Your task to perform on an android device: Open the calendar app, open the side menu, and click the "Day" option Image 0: 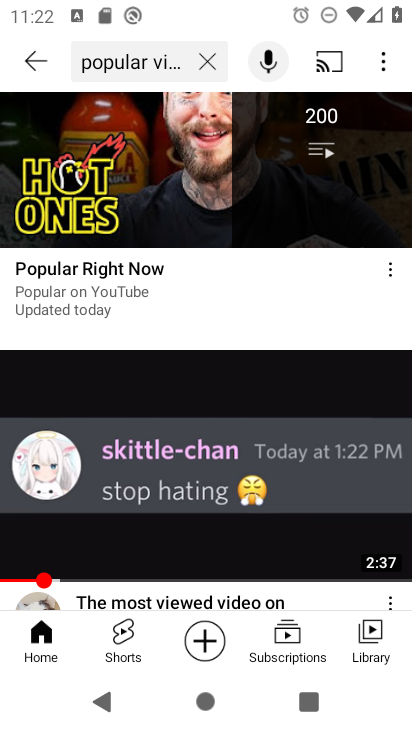
Step 0: press home button
Your task to perform on an android device: Open the calendar app, open the side menu, and click the "Day" option Image 1: 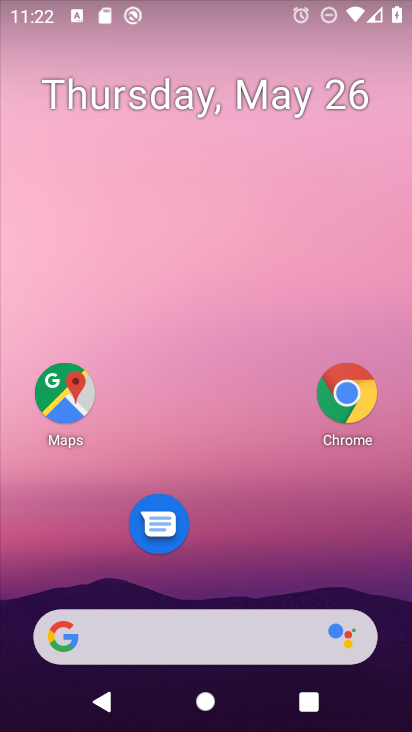
Step 1: drag from (224, 535) to (207, 21)
Your task to perform on an android device: Open the calendar app, open the side menu, and click the "Day" option Image 2: 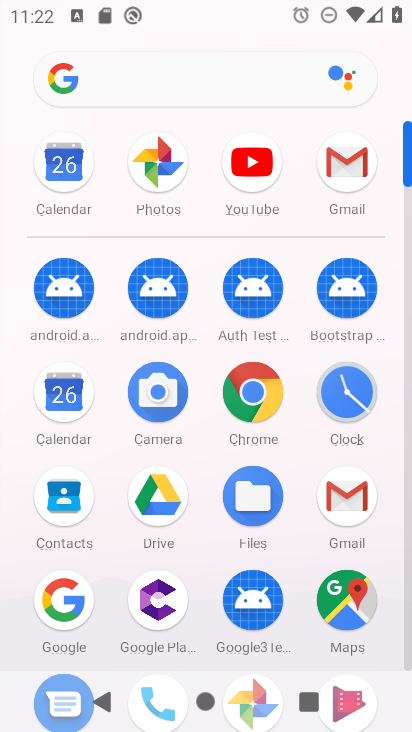
Step 2: click (60, 167)
Your task to perform on an android device: Open the calendar app, open the side menu, and click the "Day" option Image 3: 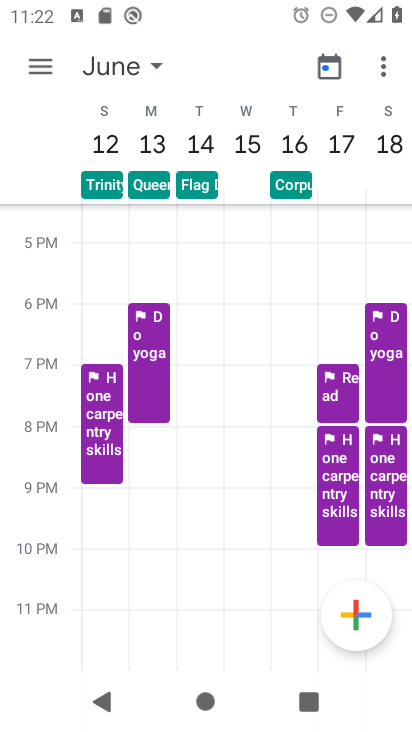
Step 3: click (45, 65)
Your task to perform on an android device: Open the calendar app, open the side menu, and click the "Day" option Image 4: 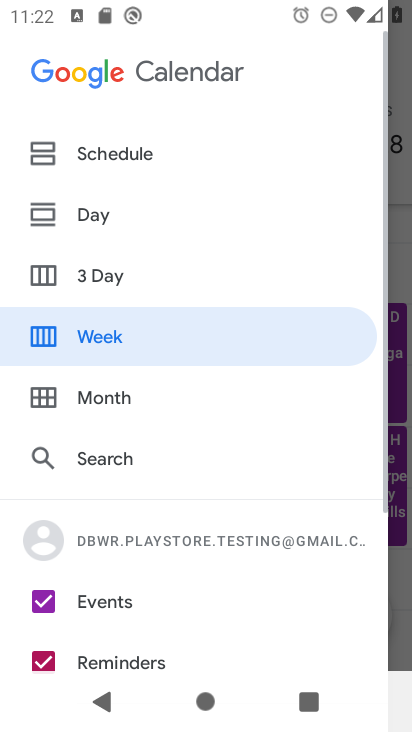
Step 4: click (37, 210)
Your task to perform on an android device: Open the calendar app, open the side menu, and click the "Day" option Image 5: 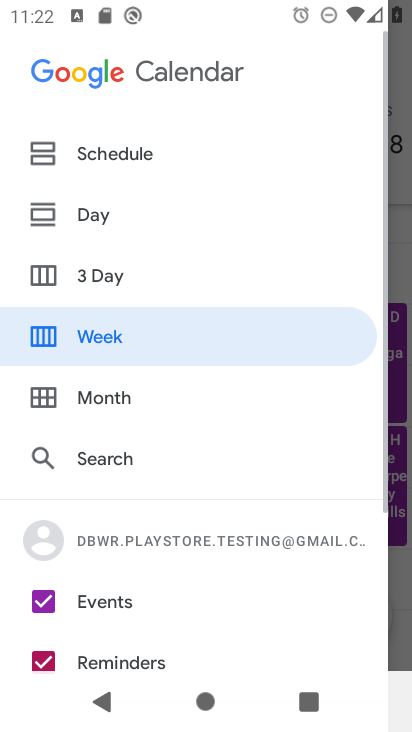
Step 5: click (41, 214)
Your task to perform on an android device: Open the calendar app, open the side menu, and click the "Day" option Image 6: 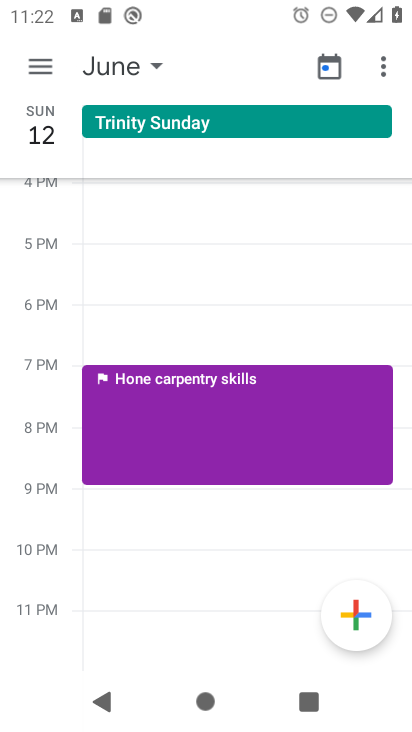
Step 6: task complete